Your task to perform on an android device: What's the weather going to be this weekend? Image 0: 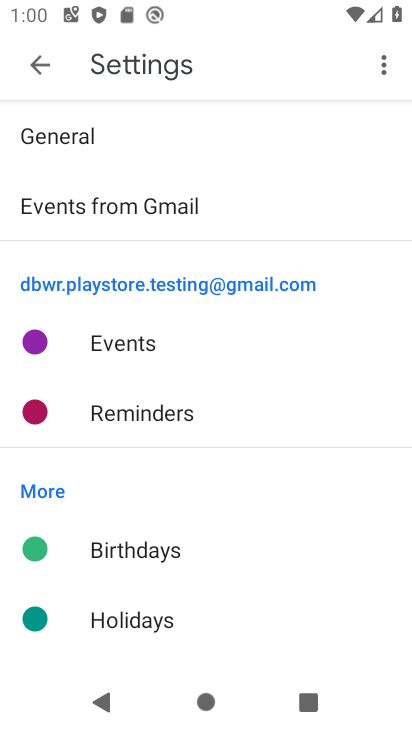
Step 0: press home button
Your task to perform on an android device: What's the weather going to be this weekend? Image 1: 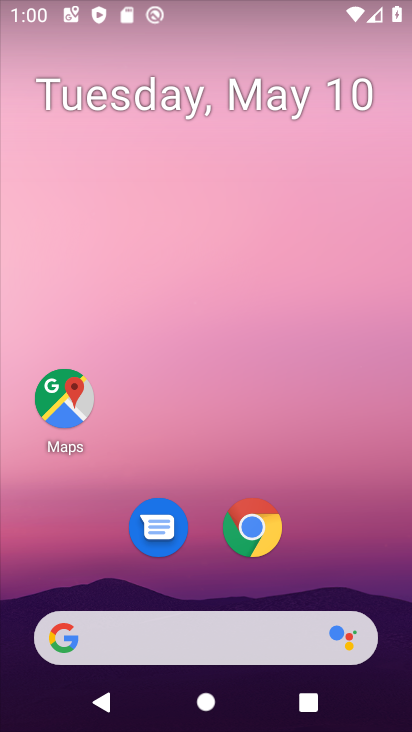
Step 1: click (129, 639)
Your task to perform on an android device: What's the weather going to be this weekend? Image 2: 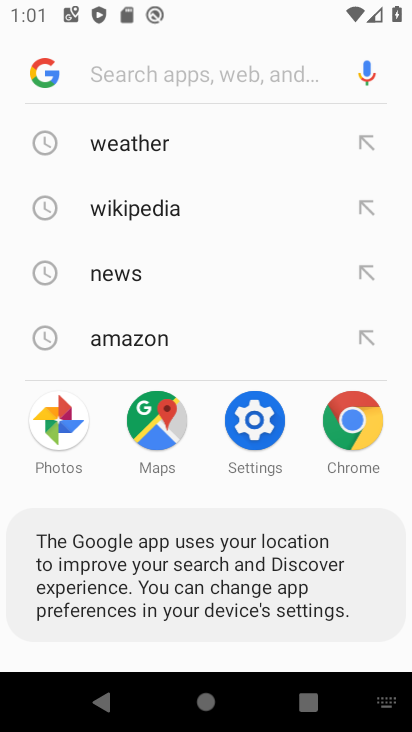
Step 2: click (131, 149)
Your task to perform on an android device: What's the weather going to be this weekend? Image 3: 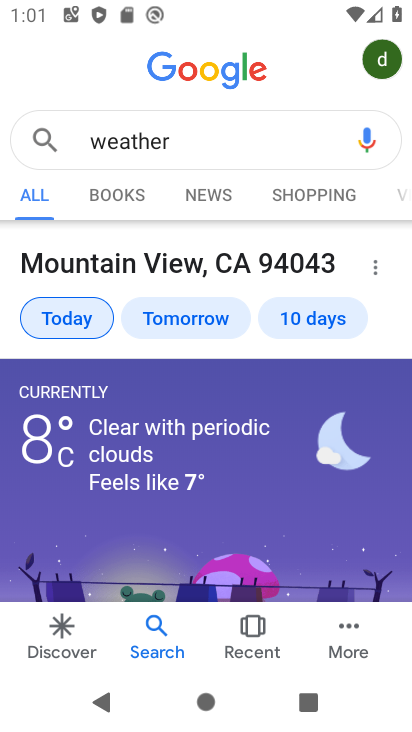
Step 3: click (316, 319)
Your task to perform on an android device: What's the weather going to be this weekend? Image 4: 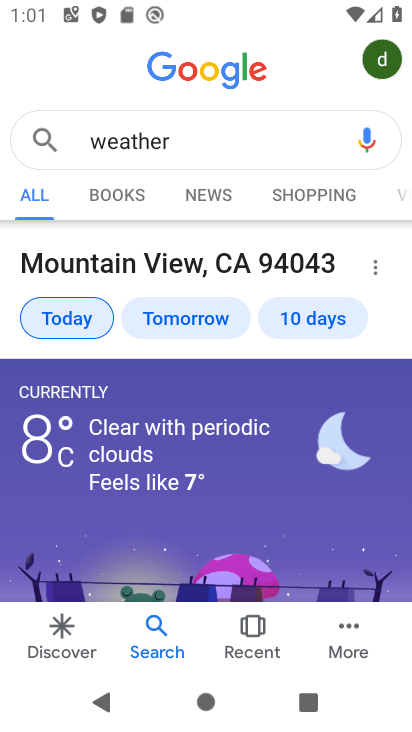
Step 4: click (301, 336)
Your task to perform on an android device: What's the weather going to be this weekend? Image 5: 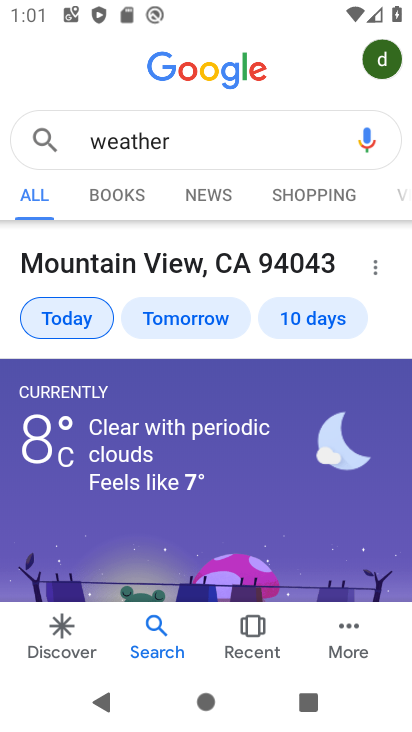
Step 5: click (309, 324)
Your task to perform on an android device: What's the weather going to be this weekend? Image 6: 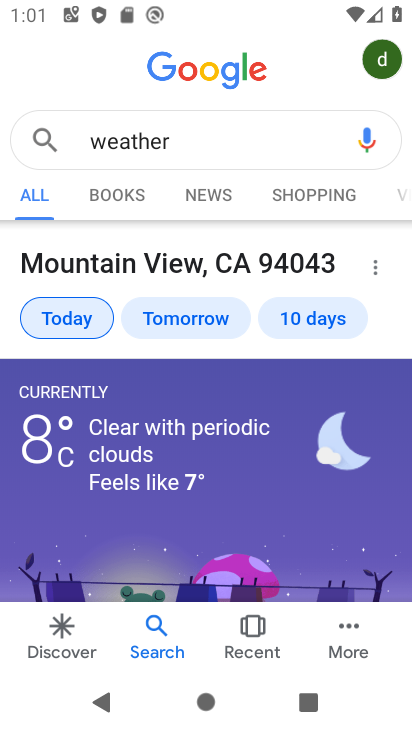
Step 6: click (339, 321)
Your task to perform on an android device: What's the weather going to be this weekend? Image 7: 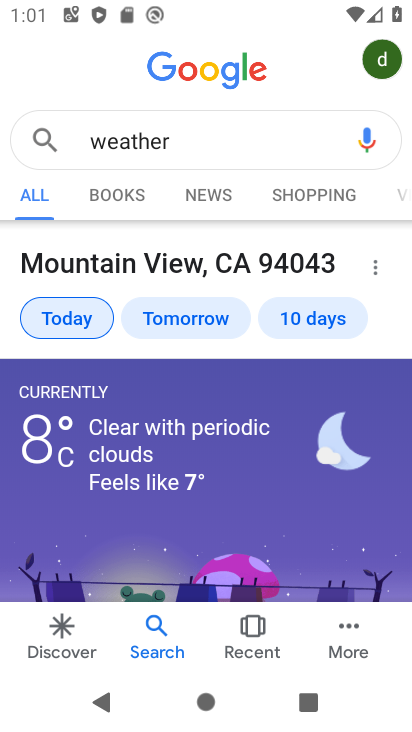
Step 7: click (309, 321)
Your task to perform on an android device: What's the weather going to be this weekend? Image 8: 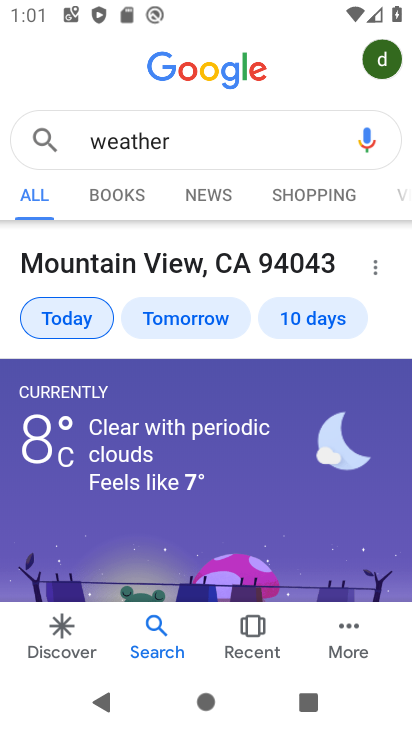
Step 8: drag from (257, 450) to (275, 183)
Your task to perform on an android device: What's the weather going to be this weekend? Image 9: 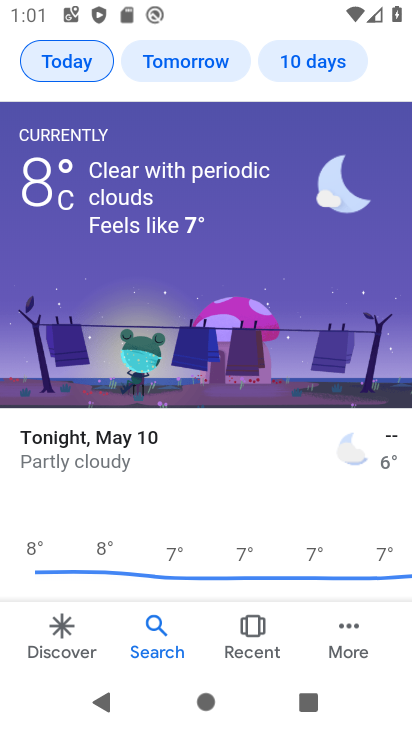
Step 9: drag from (295, 159) to (295, 350)
Your task to perform on an android device: What's the weather going to be this weekend? Image 10: 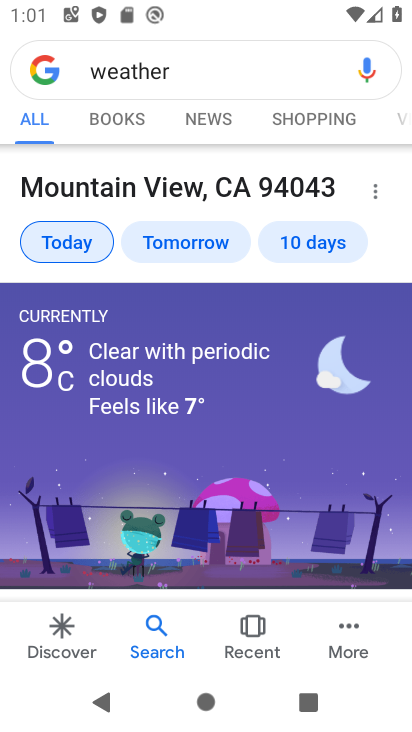
Step 10: click (329, 235)
Your task to perform on an android device: What's the weather going to be this weekend? Image 11: 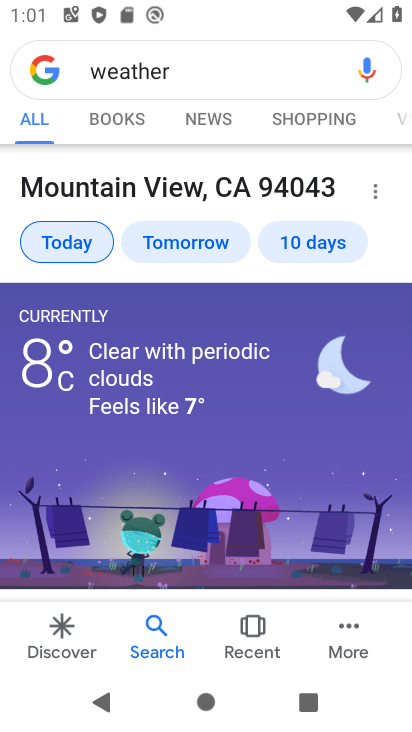
Step 11: click (321, 242)
Your task to perform on an android device: What's the weather going to be this weekend? Image 12: 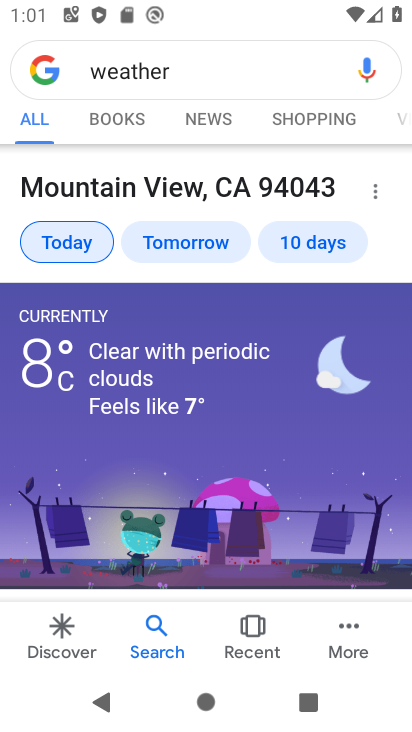
Step 12: click (314, 257)
Your task to perform on an android device: What's the weather going to be this weekend? Image 13: 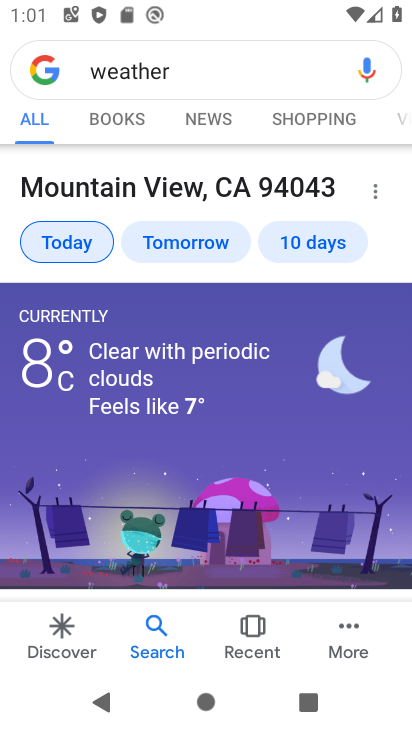
Step 13: drag from (221, 453) to (253, 118)
Your task to perform on an android device: What's the weather going to be this weekend? Image 14: 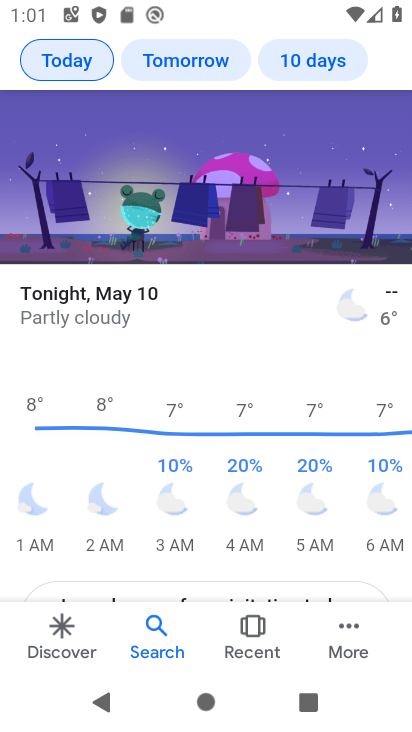
Step 14: drag from (198, 455) to (217, 144)
Your task to perform on an android device: What's the weather going to be this weekend? Image 15: 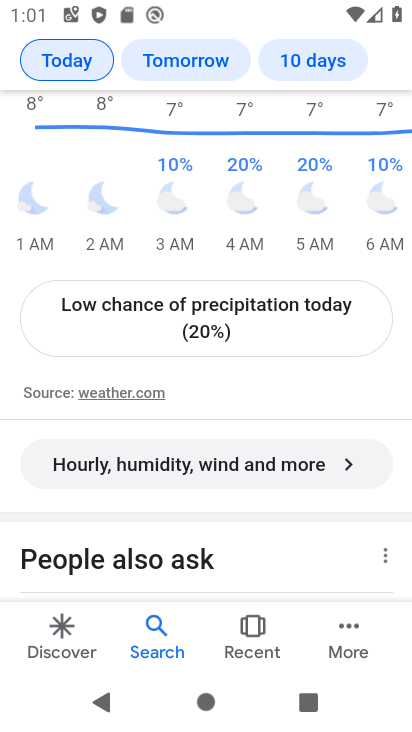
Step 15: drag from (181, 459) to (271, 215)
Your task to perform on an android device: What's the weather going to be this weekend? Image 16: 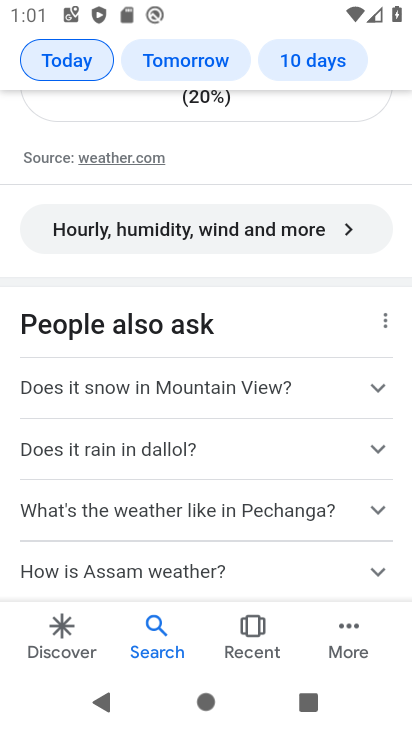
Step 16: drag from (262, 231) to (263, 625)
Your task to perform on an android device: What's the weather going to be this weekend? Image 17: 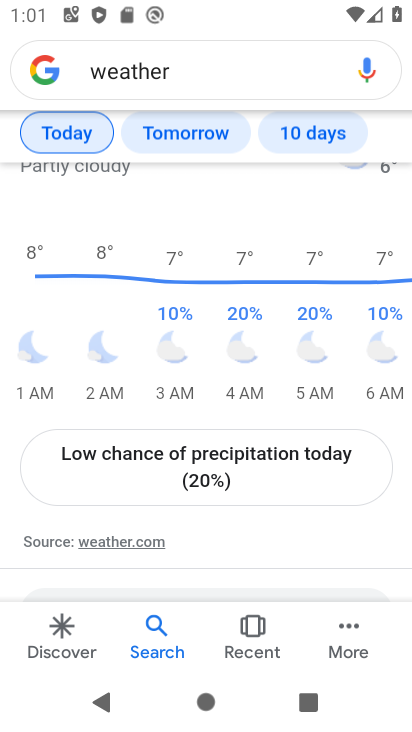
Step 17: drag from (275, 238) to (233, 522)
Your task to perform on an android device: What's the weather going to be this weekend? Image 18: 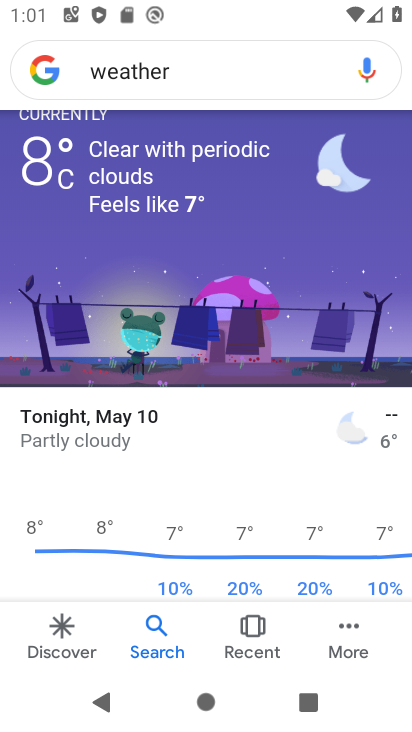
Step 18: drag from (296, 175) to (300, 453)
Your task to perform on an android device: What's the weather going to be this weekend? Image 19: 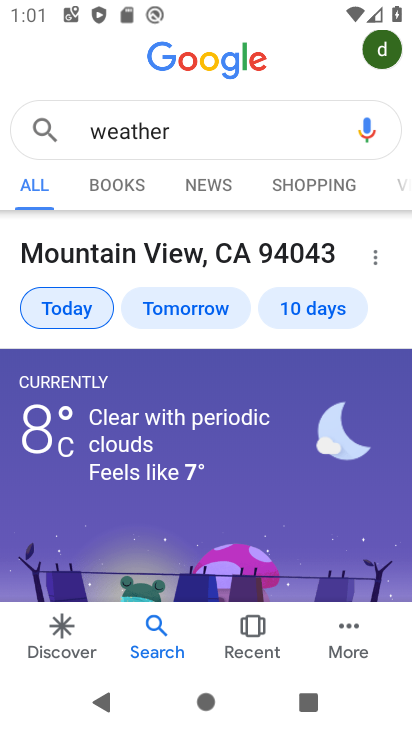
Step 19: click (318, 317)
Your task to perform on an android device: What's the weather going to be this weekend? Image 20: 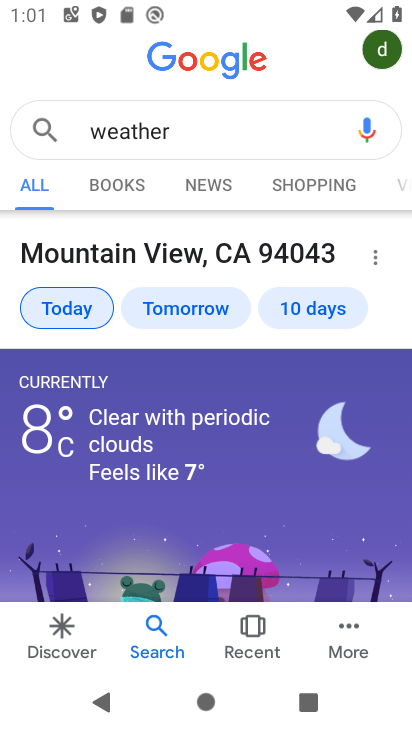
Step 20: task complete